Your task to perform on an android device: search for starred emails in the gmail app Image 0: 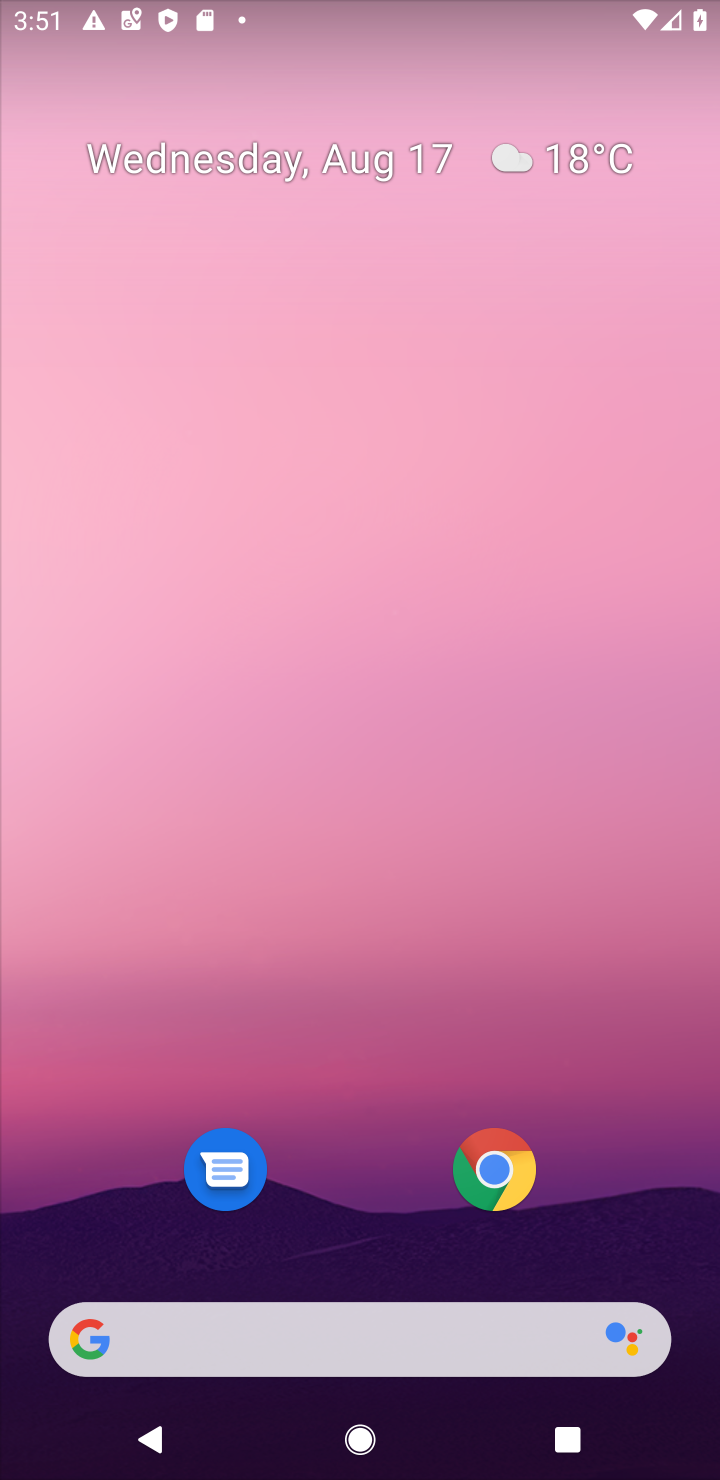
Step 0: drag from (323, 1177) to (447, 11)
Your task to perform on an android device: search for starred emails in the gmail app Image 1: 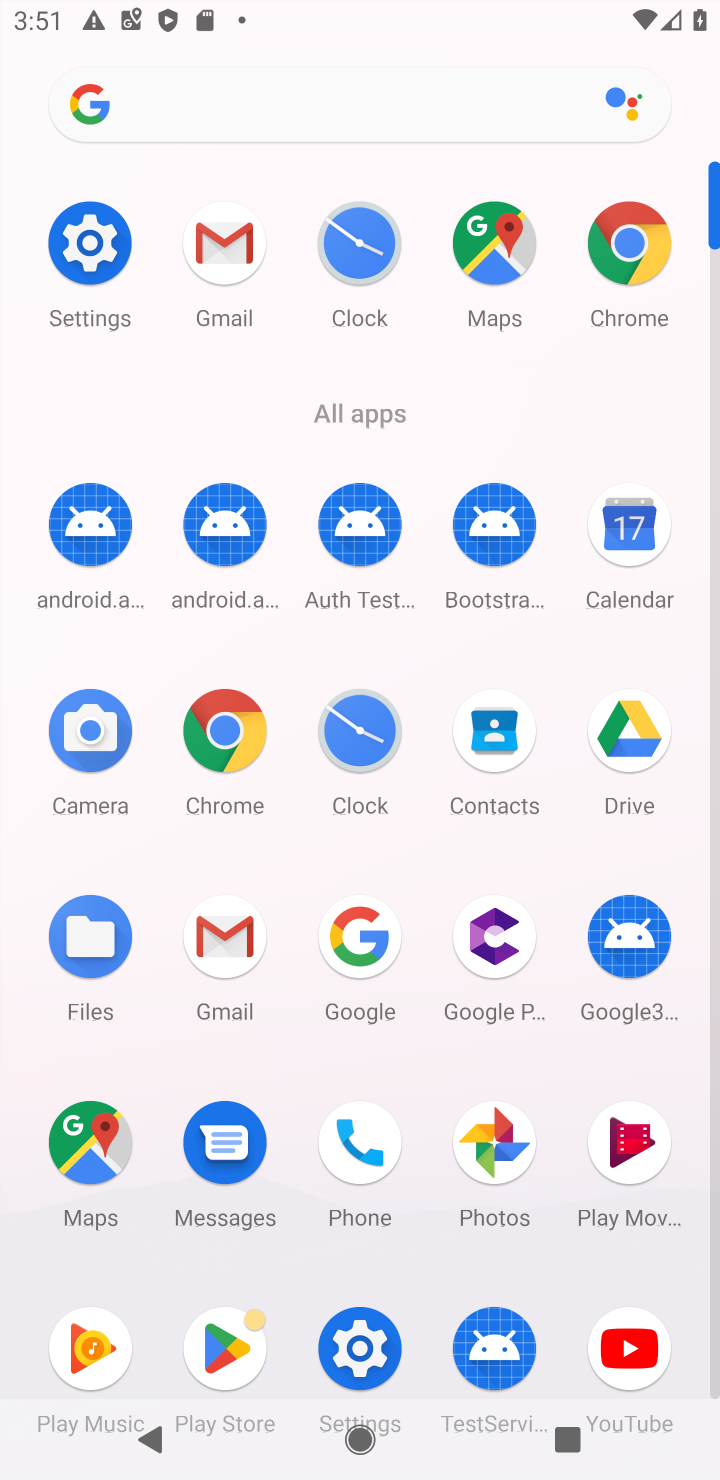
Step 1: click (226, 922)
Your task to perform on an android device: search for starred emails in the gmail app Image 2: 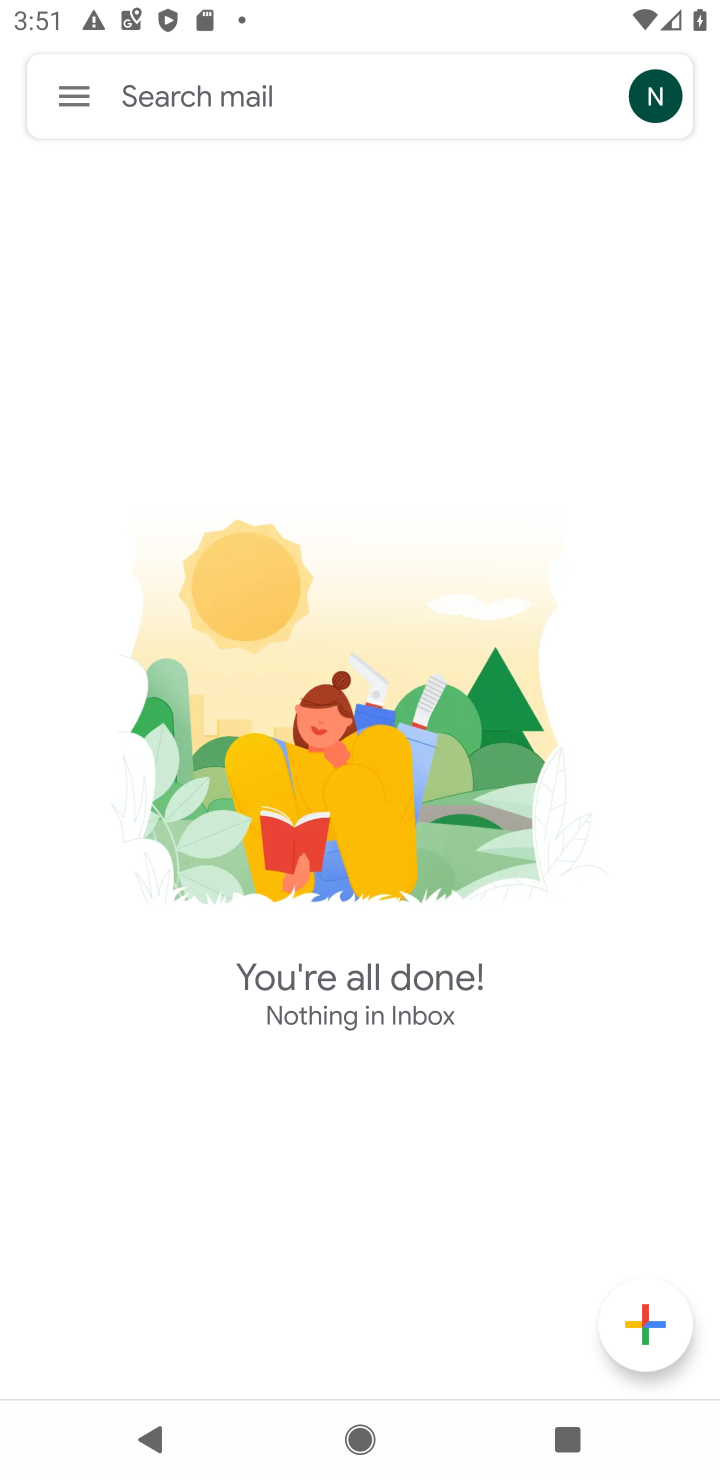
Step 2: click (67, 100)
Your task to perform on an android device: search for starred emails in the gmail app Image 3: 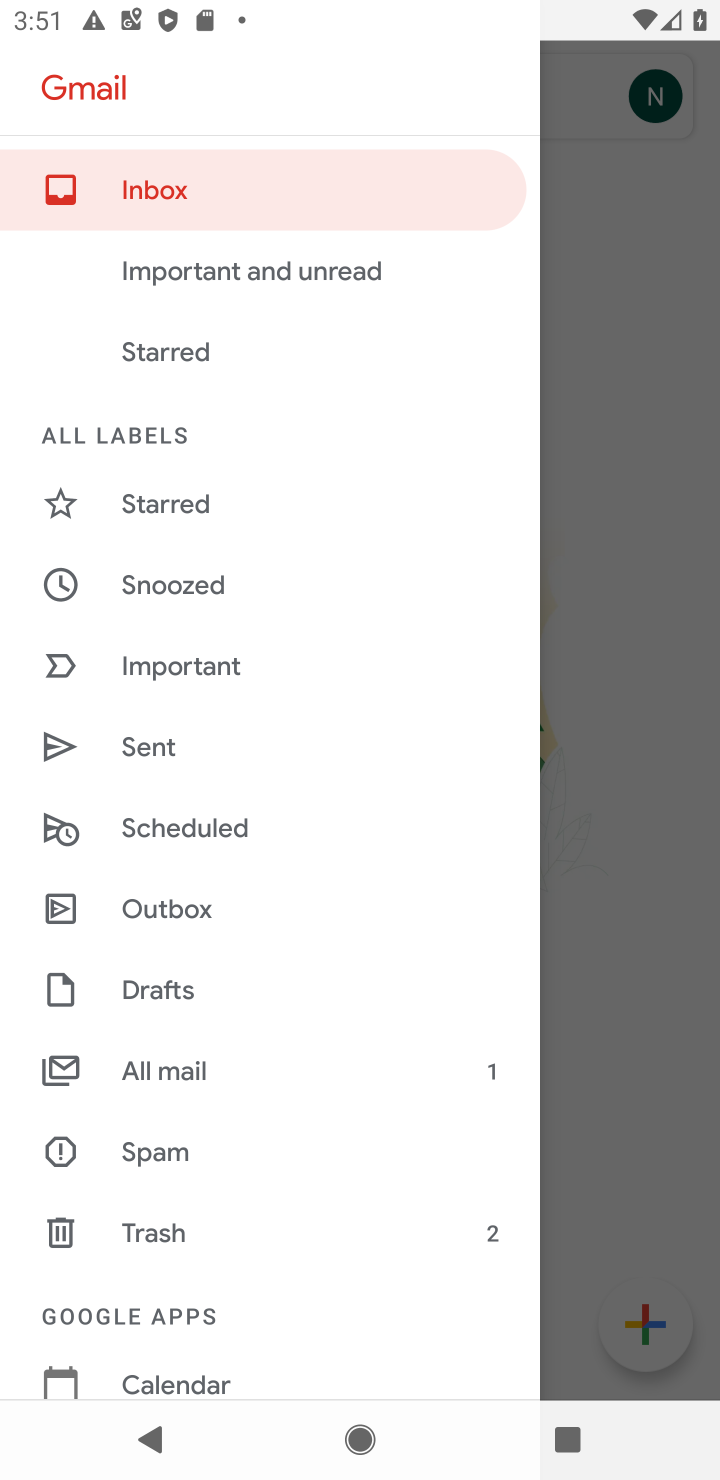
Step 3: click (196, 504)
Your task to perform on an android device: search for starred emails in the gmail app Image 4: 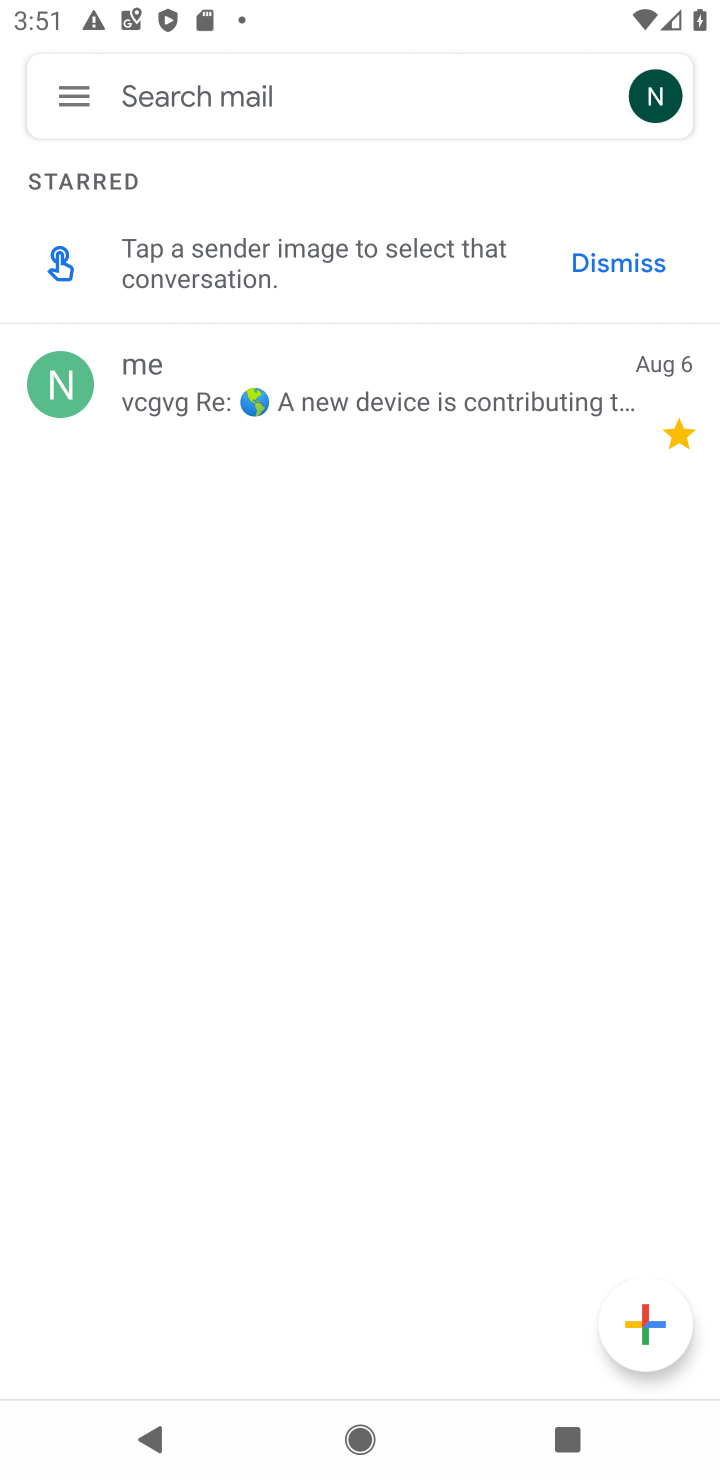
Step 4: task complete